Your task to perform on an android device: all mails in gmail Image 0: 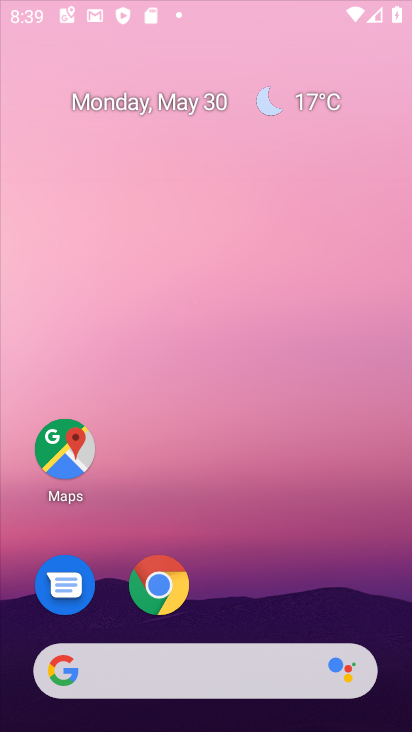
Step 0: click (367, 0)
Your task to perform on an android device: all mails in gmail Image 1: 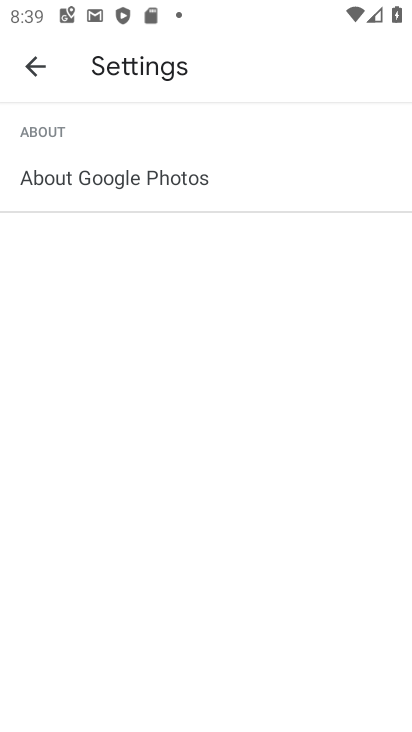
Step 1: press home button
Your task to perform on an android device: all mails in gmail Image 2: 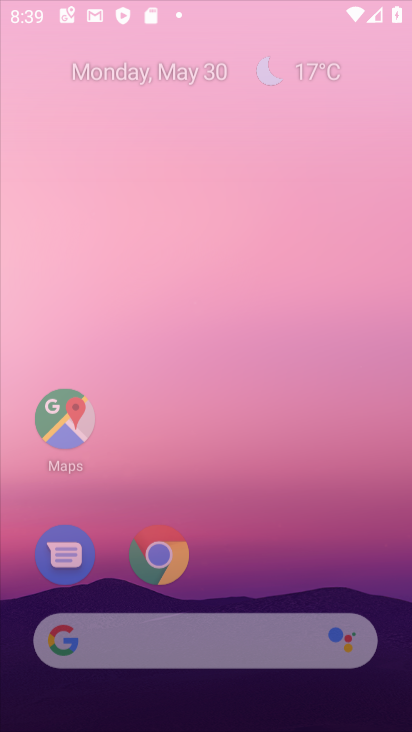
Step 2: drag from (218, 637) to (255, 70)
Your task to perform on an android device: all mails in gmail Image 3: 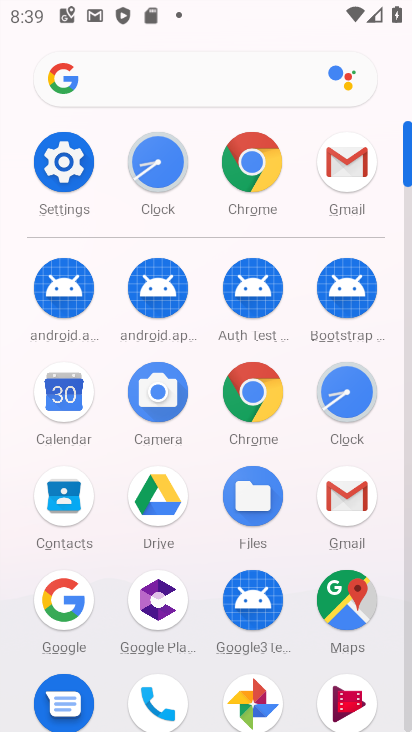
Step 3: click (331, 487)
Your task to perform on an android device: all mails in gmail Image 4: 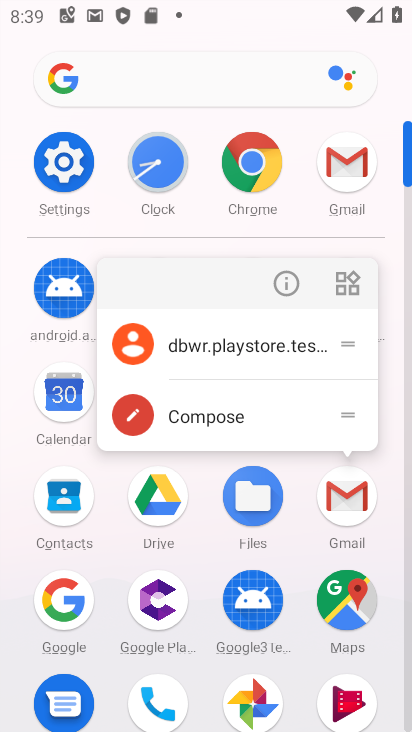
Step 4: click (251, 351)
Your task to perform on an android device: all mails in gmail Image 5: 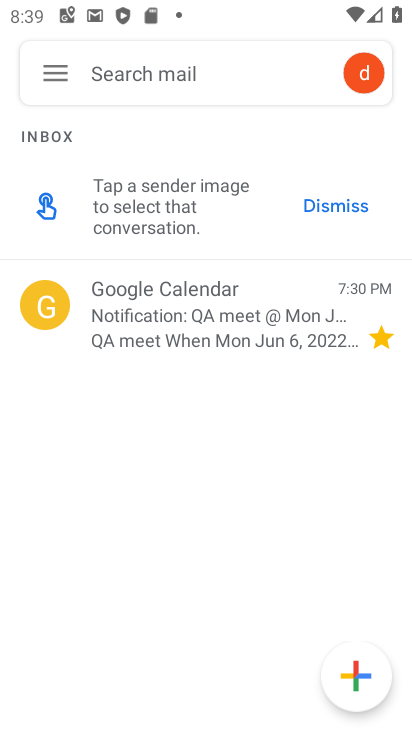
Step 5: click (45, 82)
Your task to perform on an android device: all mails in gmail Image 6: 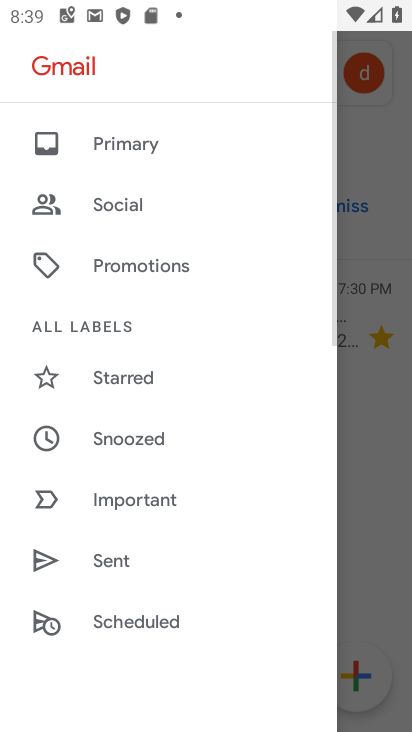
Step 6: drag from (154, 603) to (205, 141)
Your task to perform on an android device: all mails in gmail Image 7: 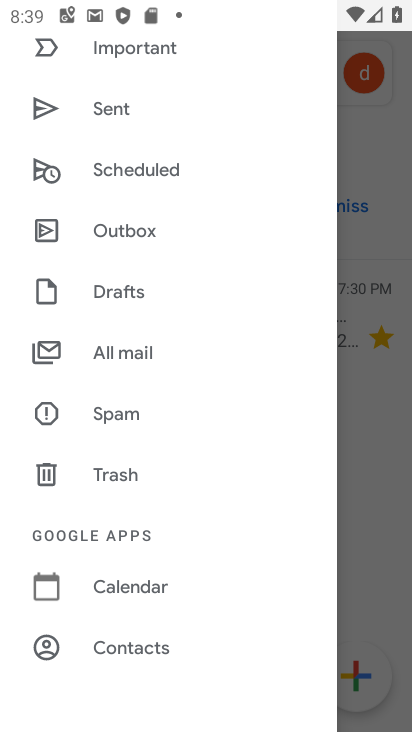
Step 7: click (118, 351)
Your task to perform on an android device: all mails in gmail Image 8: 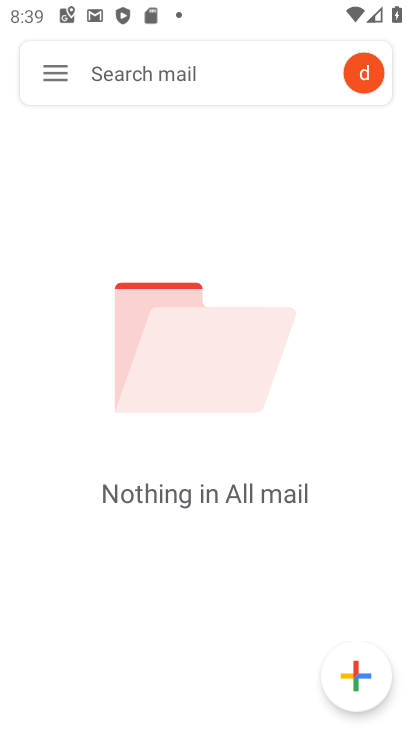
Step 8: task complete